Your task to perform on an android device: manage bookmarks in the chrome app Image 0: 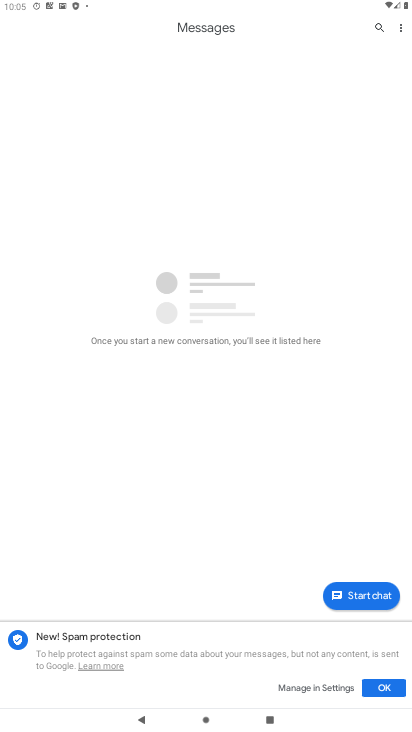
Step 0: drag from (202, 563) to (293, 88)
Your task to perform on an android device: manage bookmarks in the chrome app Image 1: 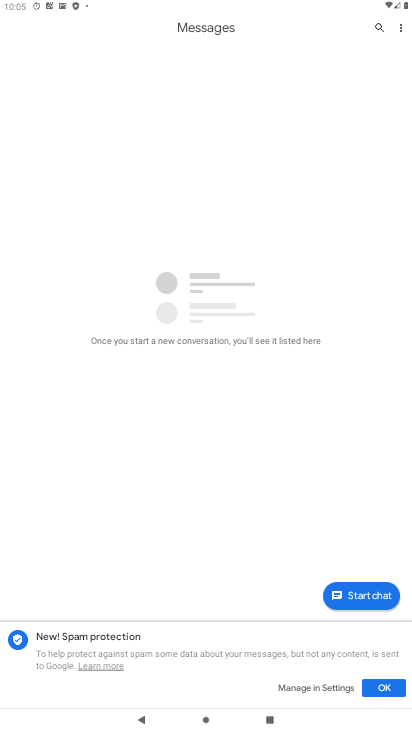
Step 1: press home button
Your task to perform on an android device: manage bookmarks in the chrome app Image 2: 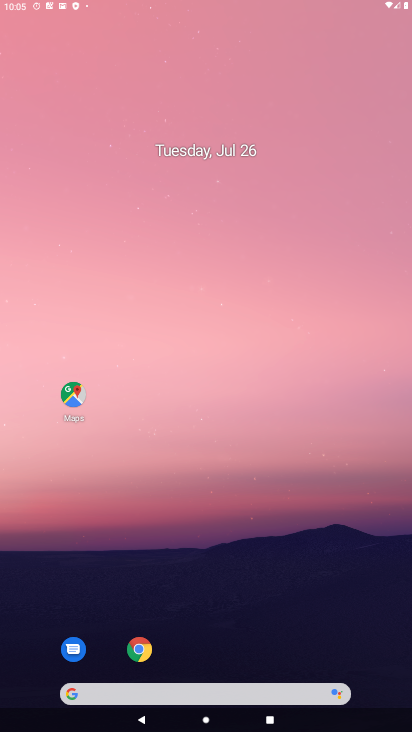
Step 2: drag from (219, 604) to (275, 63)
Your task to perform on an android device: manage bookmarks in the chrome app Image 3: 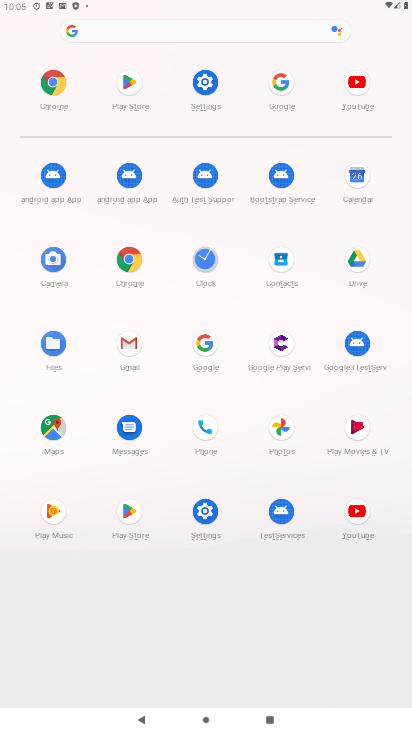
Step 3: click (127, 252)
Your task to perform on an android device: manage bookmarks in the chrome app Image 4: 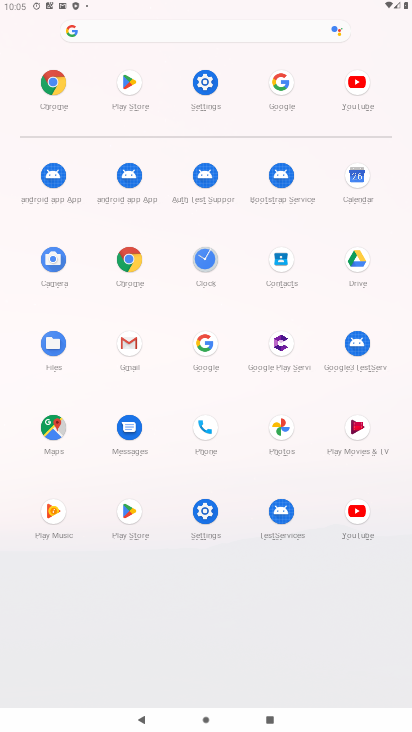
Step 4: click (126, 252)
Your task to perform on an android device: manage bookmarks in the chrome app Image 5: 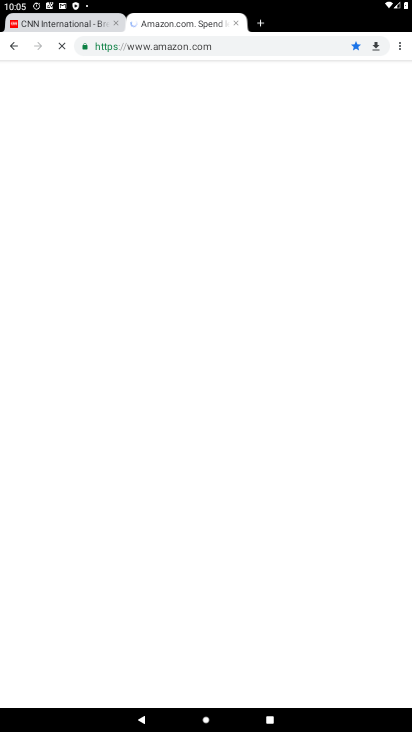
Step 5: drag from (396, 46) to (341, 93)
Your task to perform on an android device: manage bookmarks in the chrome app Image 6: 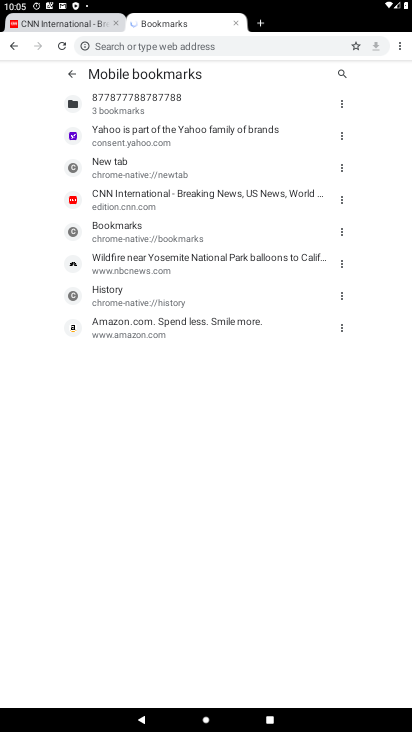
Step 6: drag from (129, 542) to (203, 259)
Your task to perform on an android device: manage bookmarks in the chrome app Image 7: 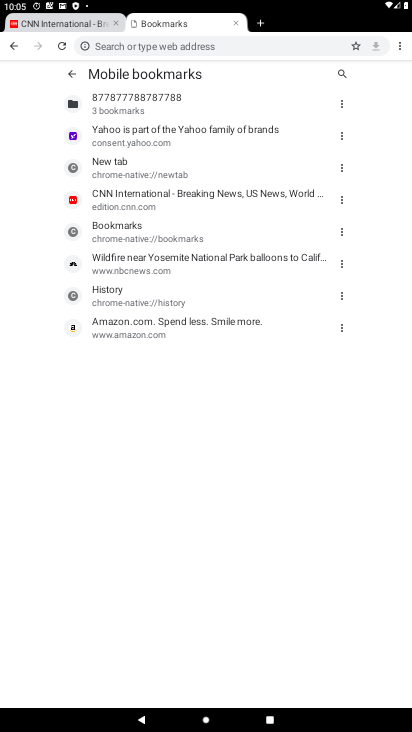
Step 7: click (342, 199)
Your task to perform on an android device: manage bookmarks in the chrome app Image 8: 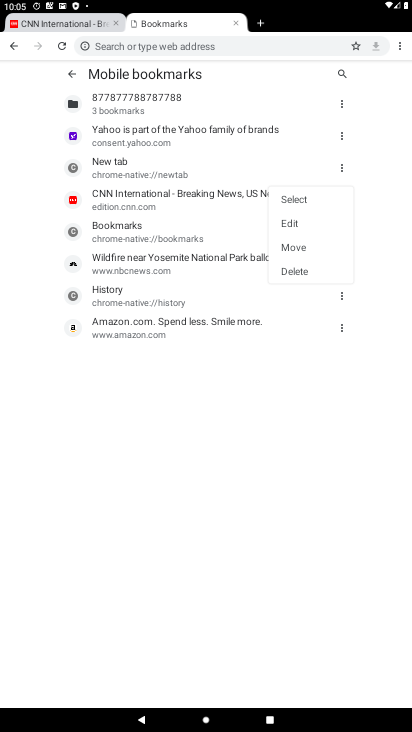
Step 8: click (301, 200)
Your task to perform on an android device: manage bookmarks in the chrome app Image 9: 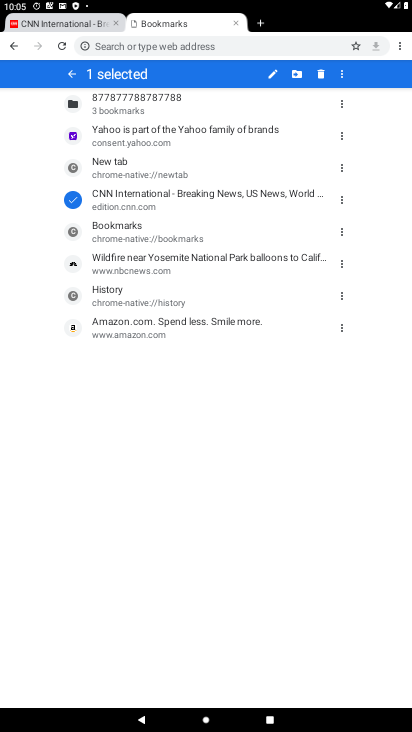
Step 9: click (290, 76)
Your task to perform on an android device: manage bookmarks in the chrome app Image 10: 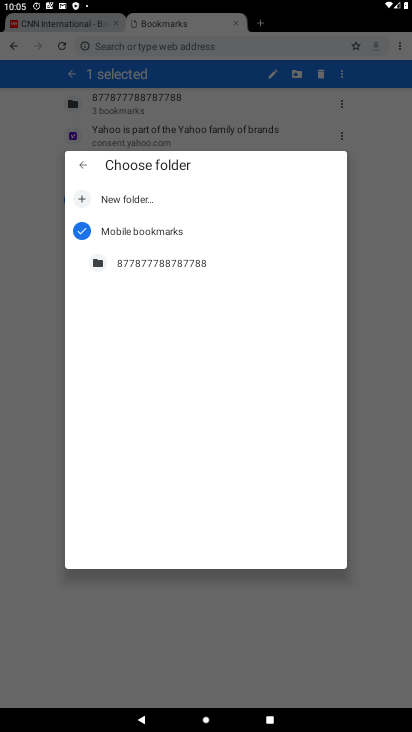
Step 10: click (133, 266)
Your task to perform on an android device: manage bookmarks in the chrome app Image 11: 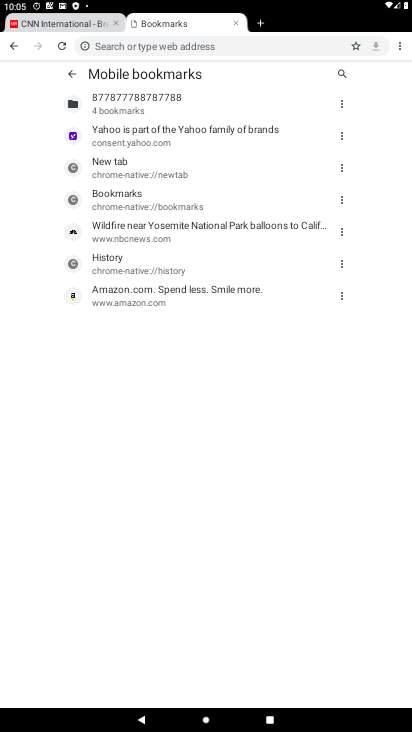
Step 11: task complete